Your task to perform on an android device: Open CNN.com Image 0: 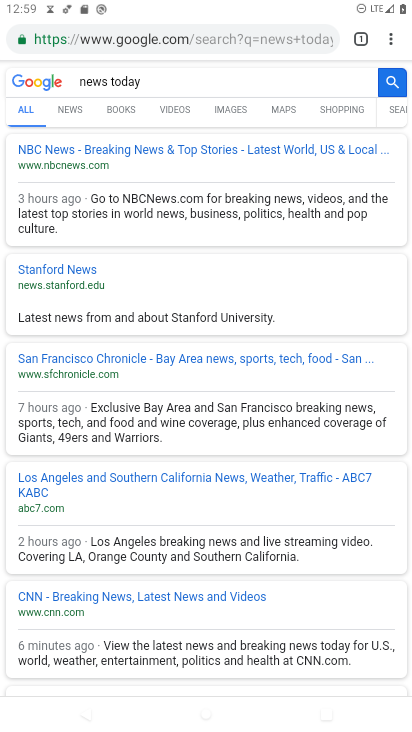
Step 0: press home button
Your task to perform on an android device: Open CNN.com Image 1: 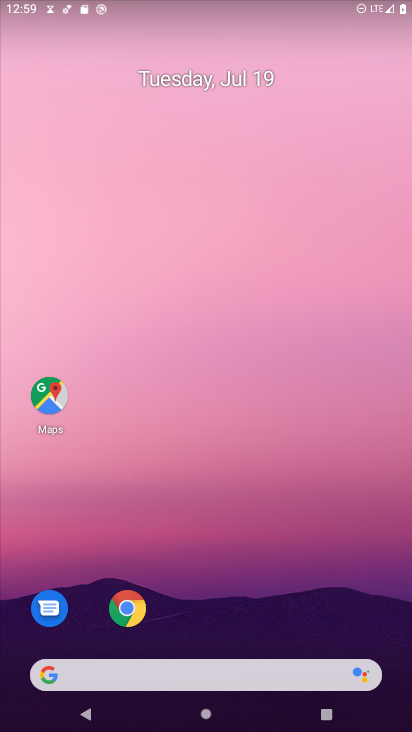
Step 1: drag from (236, 519) to (283, 8)
Your task to perform on an android device: Open CNN.com Image 2: 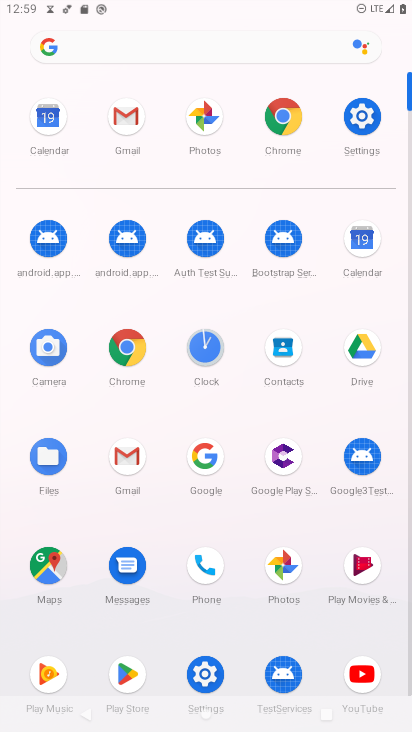
Step 2: click (135, 348)
Your task to perform on an android device: Open CNN.com Image 3: 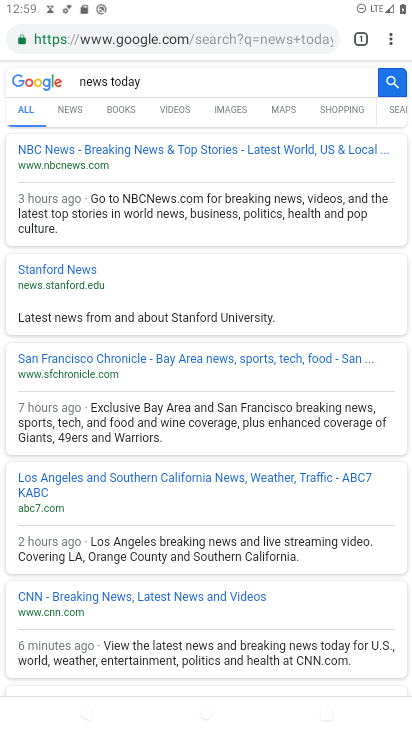
Step 3: click (231, 39)
Your task to perform on an android device: Open CNN.com Image 4: 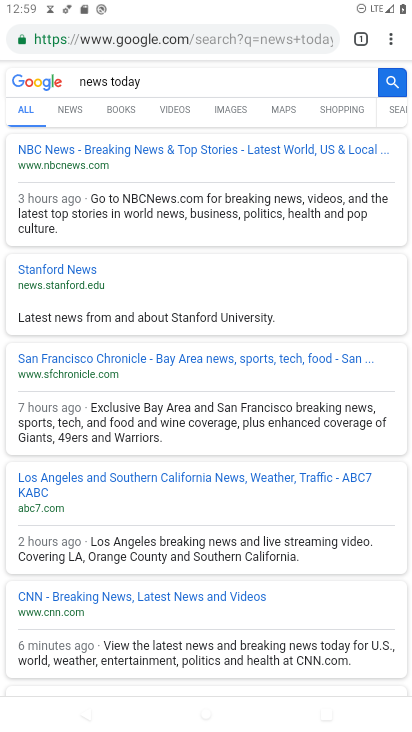
Step 4: click (231, 38)
Your task to perform on an android device: Open CNN.com Image 5: 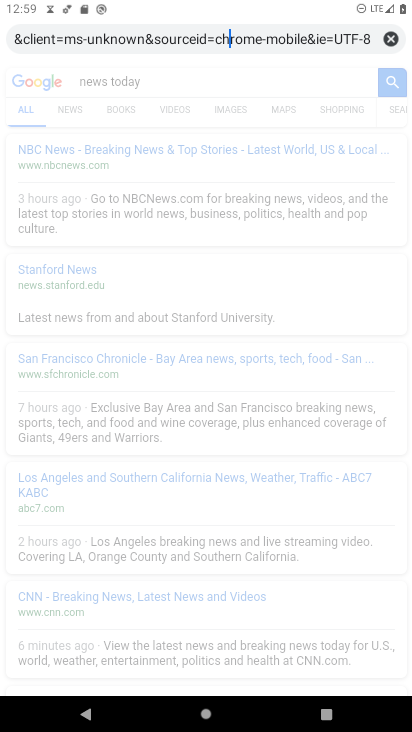
Step 5: type "cnn.com"
Your task to perform on an android device: Open CNN.com Image 6: 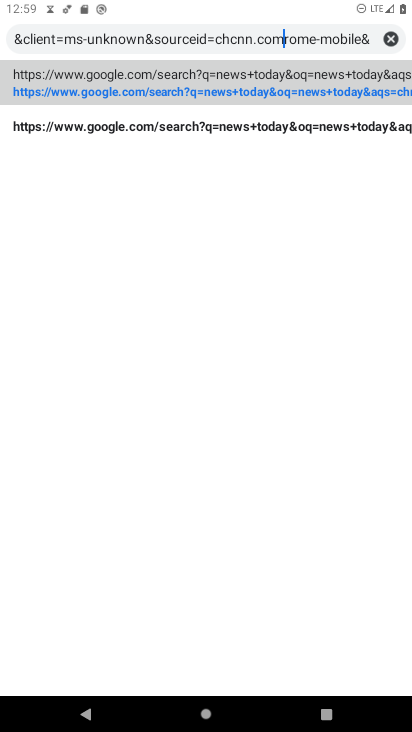
Step 6: click (391, 34)
Your task to perform on an android device: Open CNN.com Image 7: 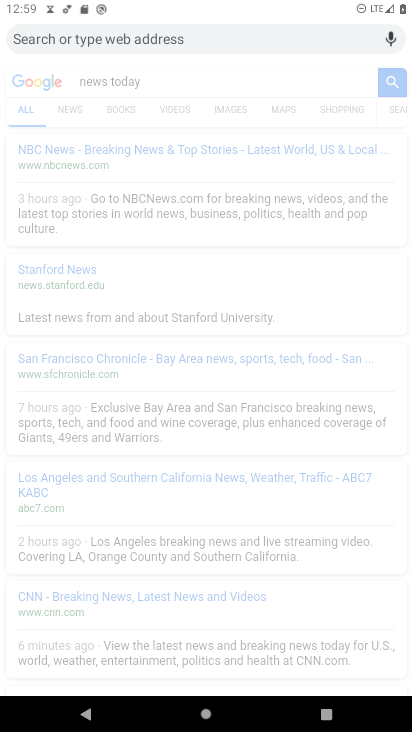
Step 7: type "cnn.com"
Your task to perform on an android device: Open CNN.com Image 8: 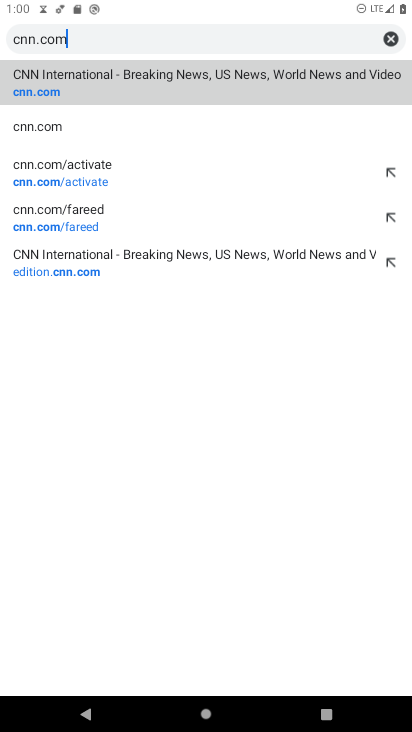
Step 8: click (121, 91)
Your task to perform on an android device: Open CNN.com Image 9: 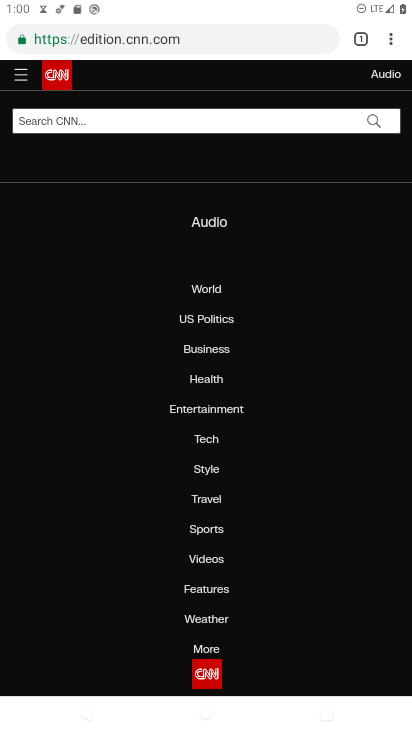
Step 9: task complete